Your task to perform on an android device: toggle priority inbox in the gmail app Image 0: 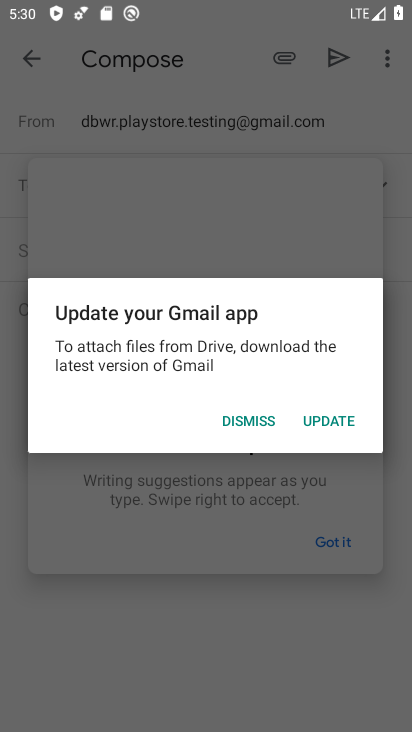
Step 0: press home button
Your task to perform on an android device: toggle priority inbox in the gmail app Image 1: 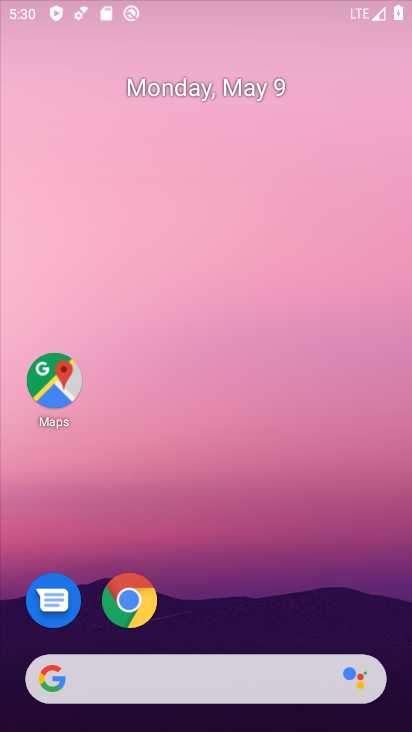
Step 1: drag from (224, 480) to (341, 2)
Your task to perform on an android device: toggle priority inbox in the gmail app Image 2: 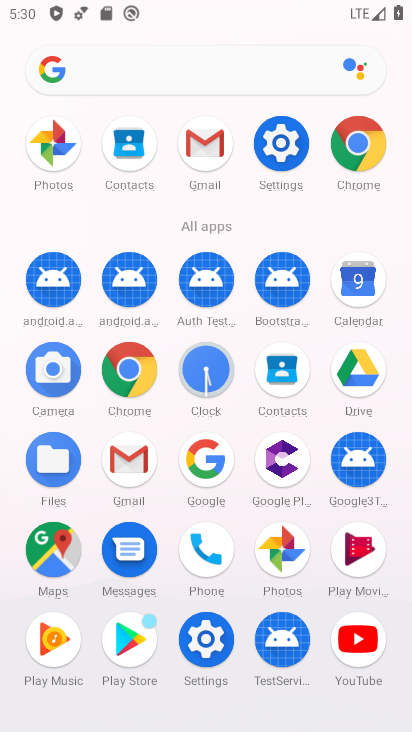
Step 2: click (137, 468)
Your task to perform on an android device: toggle priority inbox in the gmail app Image 3: 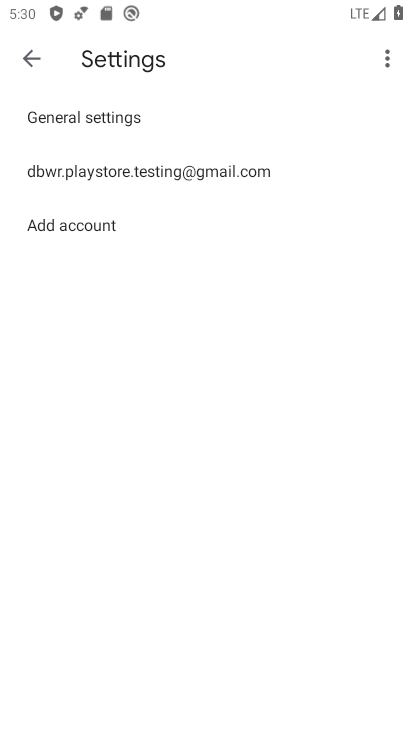
Step 3: click (116, 177)
Your task to perform on an android device: toggle priority inbox in the gmail app Image 4: 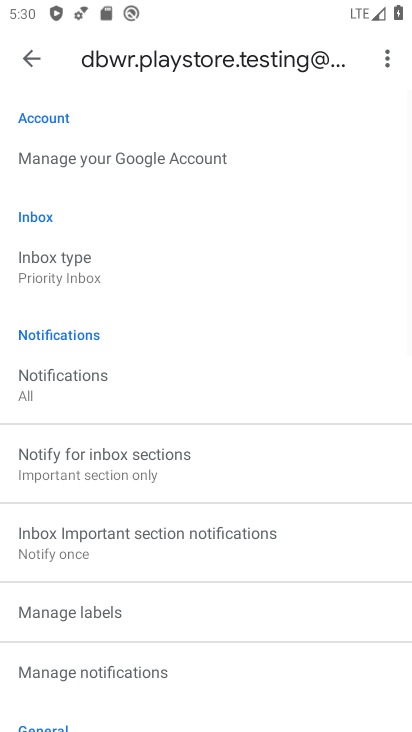
Step 4: click (85, 266)
Your task to perform on an android device: toggle priority inbox in the gmail app Image 5: 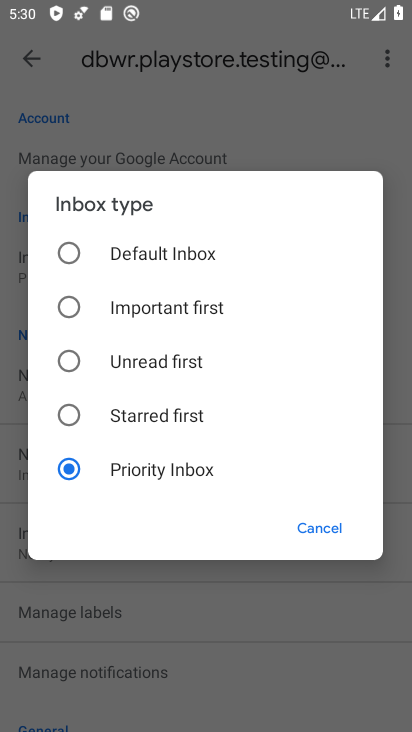
Step 5: click (92, 258)
Your task to perform on an android device: toggle priority inbox in the gmail app Image 6: 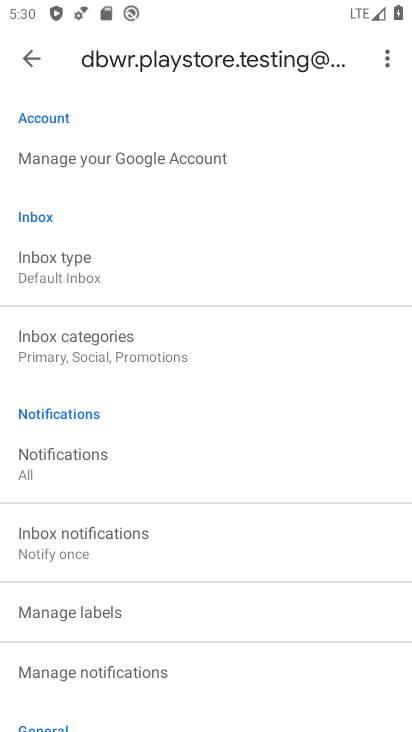
Step 6: task complete